Your task to perform on an android device: delete a single message in the gmail app Image 0: 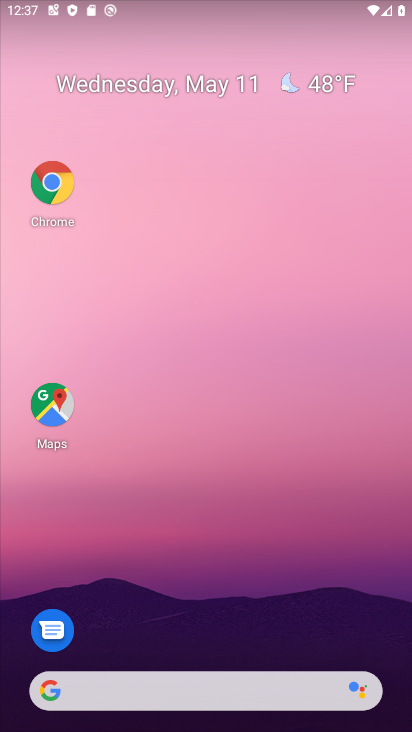
Step 0: drag from (206, 649) to (151, 6)
Your task to perform on an android device: delete a single message in the gmail app Image 1: 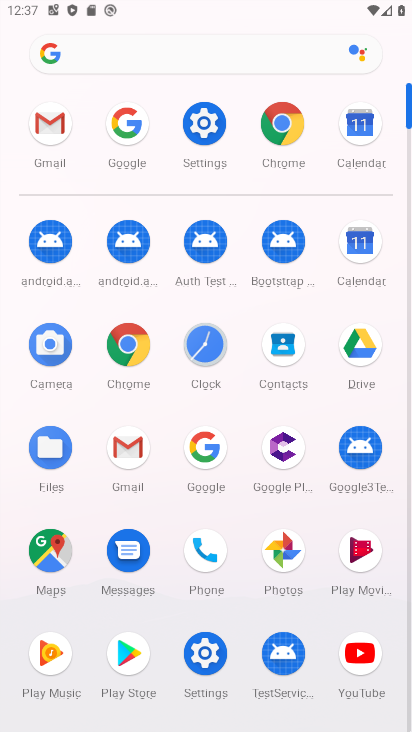
Step 1: click (124, 449)
Your task to perform on an android device: delete a single message in the gmail app Image 2: 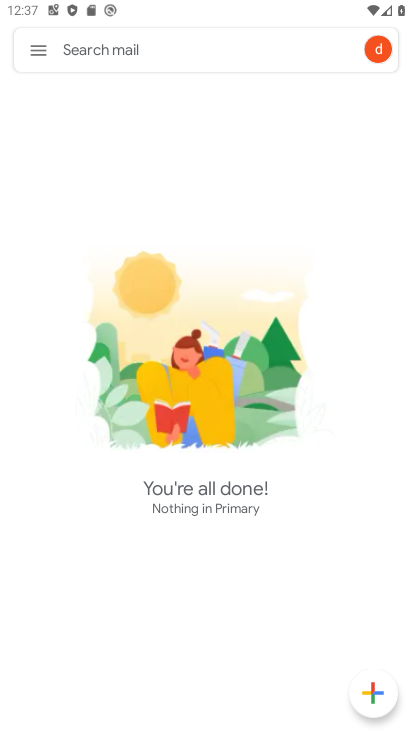
Step 2: click (46, 50)
Your task to perform on an android device: delete a single message in the gmail app Image 3: 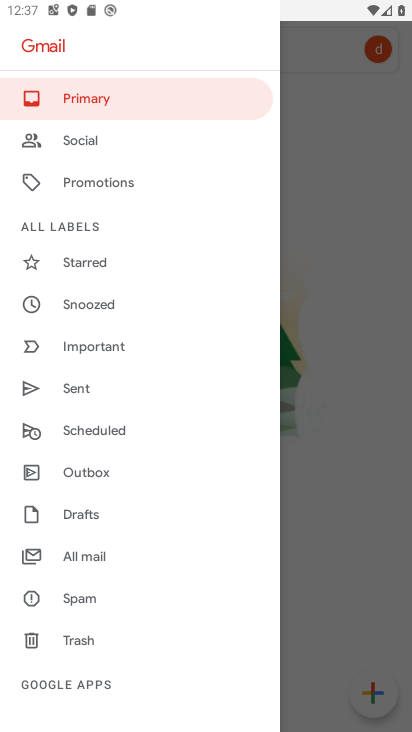
Step 3: click (85, 550)
Your task to perform on an android device: delete a single message in the gmail app Image 4: 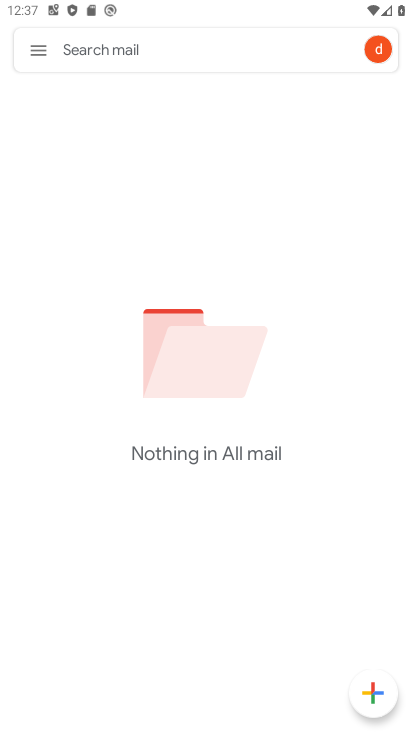
Step 4: task complete